Your task to perform on an android device: manage bookmarks in the chrome app Image 0: 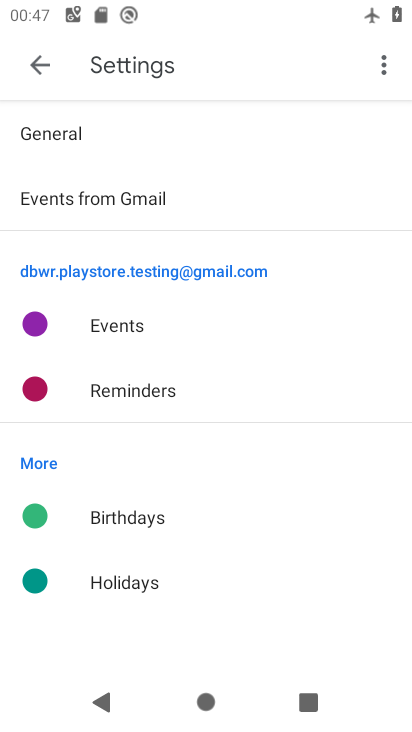
Step 0: press home button
Your task to perform on an android device: manage bookmarks in the chrome app Image 1: 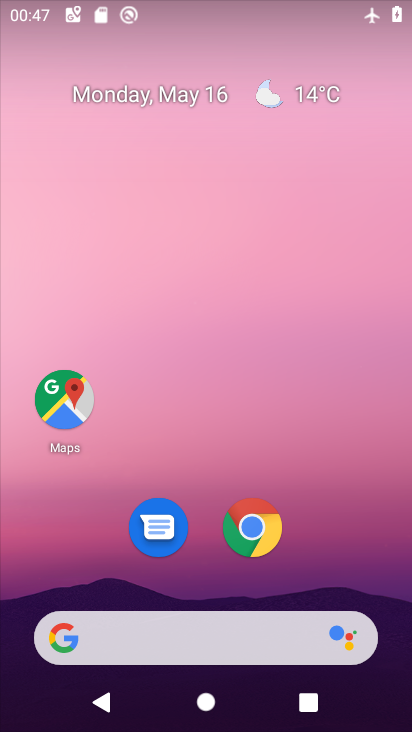
Step 1: click (264, 524)
Your task to perform on an android device: manage bookmarks in the chrome app Image 2: 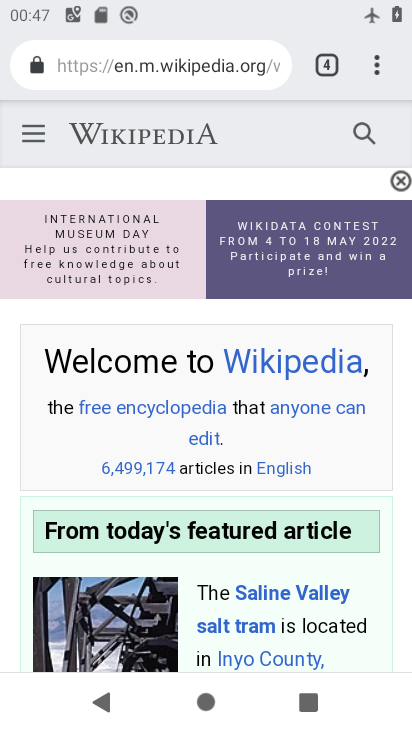
Step 2: click (385, 69)
Your task to perform on an android device: manage bookmarks in the chrome app Image 3: 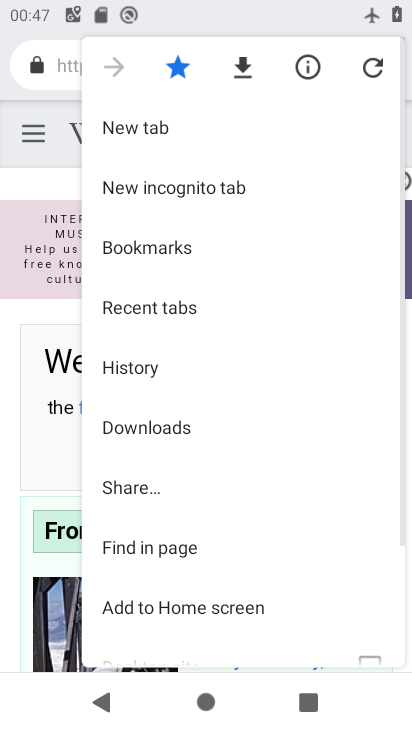
Step 3: click (170, 247)
Your task to perform on an android device: manage bookmarks in the chrome app Image 4: 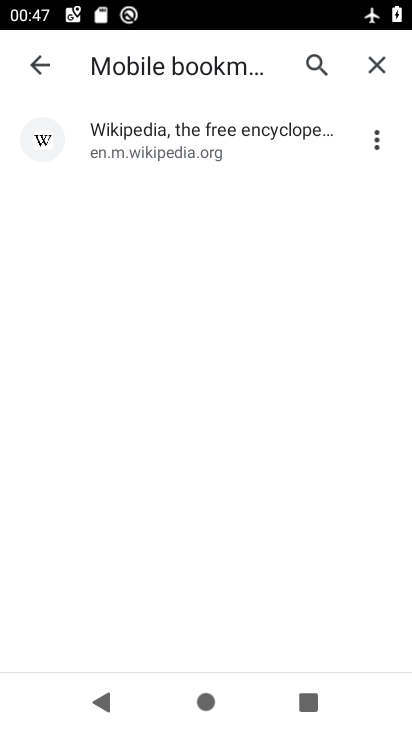
Step 4: click (372, 137)
Your task to perform on an android device: manage bookmarks in the chrome app Image 5: 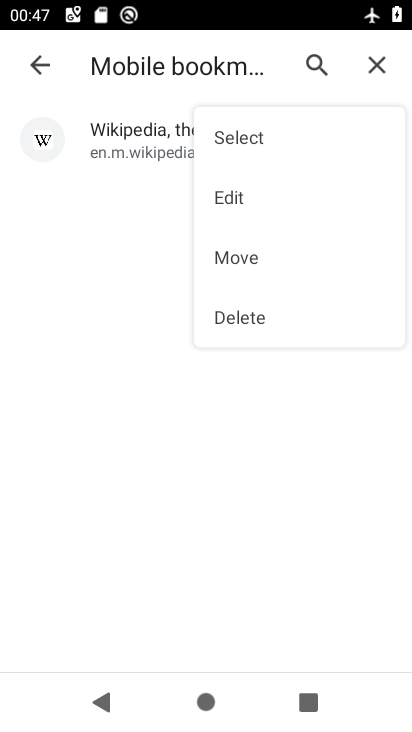
Step 5: click (233, 191)
Your task to perform on an android device: manage bookmarks in the chrome app Image 6: 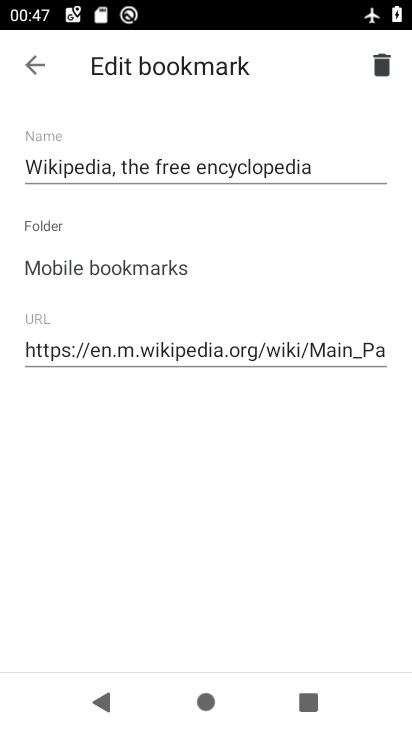
Step 6: click (276, 167)
Your task to perform on an android device: manage bookmarks in the chrome app Image 7: 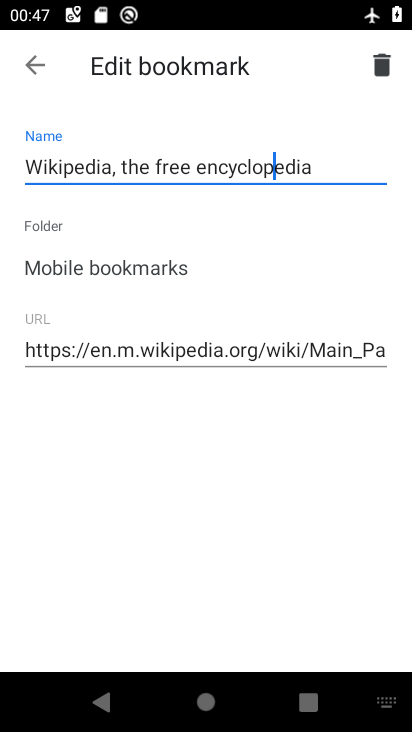
Step 7: type "asasasa"
Your task to perform on an android device: manage bookmarks in the chrome app Image 8: 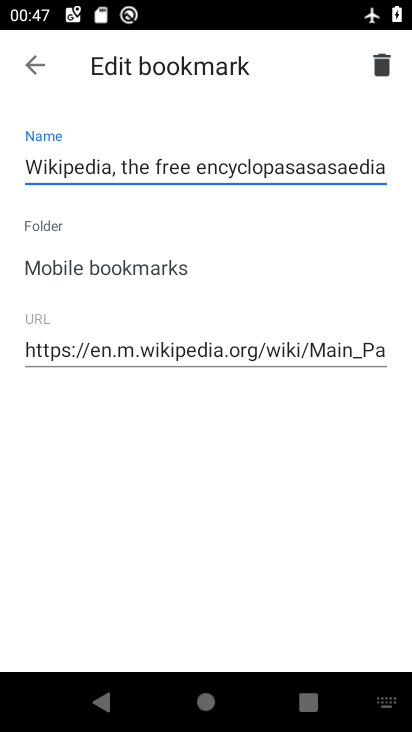
Step 8: click (35, 55)
Your task to perform on an android device: manage bookmarks in the chrome app Image 9: 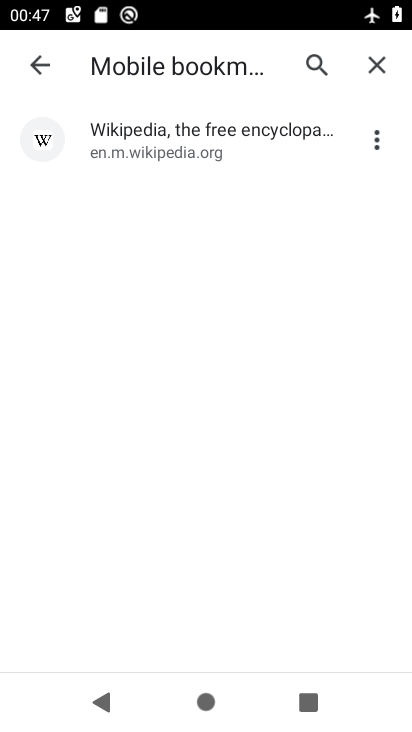
Step 9: task complete